Your task to perform on an android device: check the backup settings in the google photos Image 0: 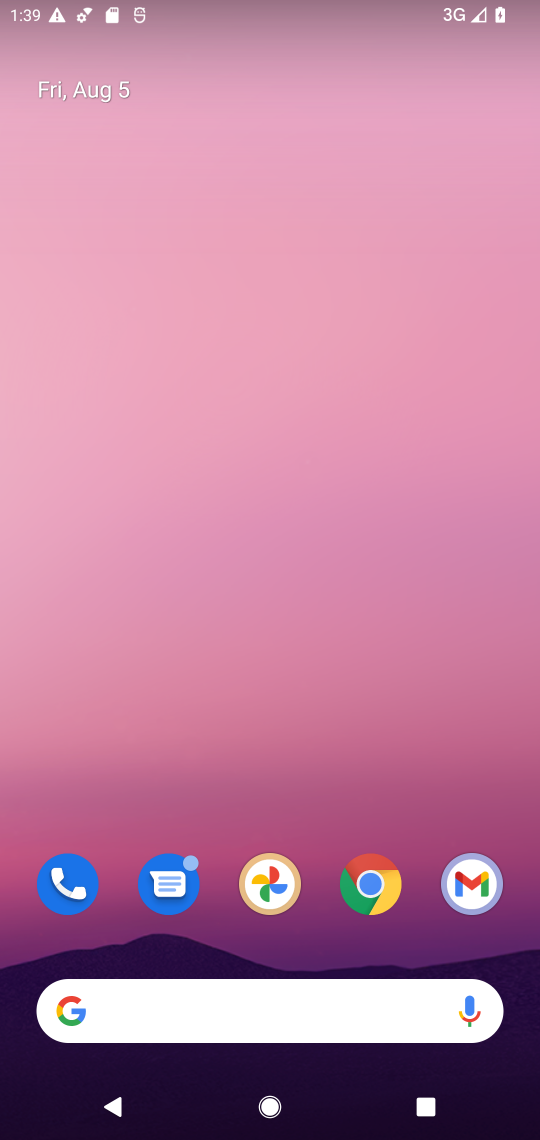
Step 0: drag from (527, 915) to (320, 30)
Your task to perform on an android device: check the backup settings in the google photos Image 1: 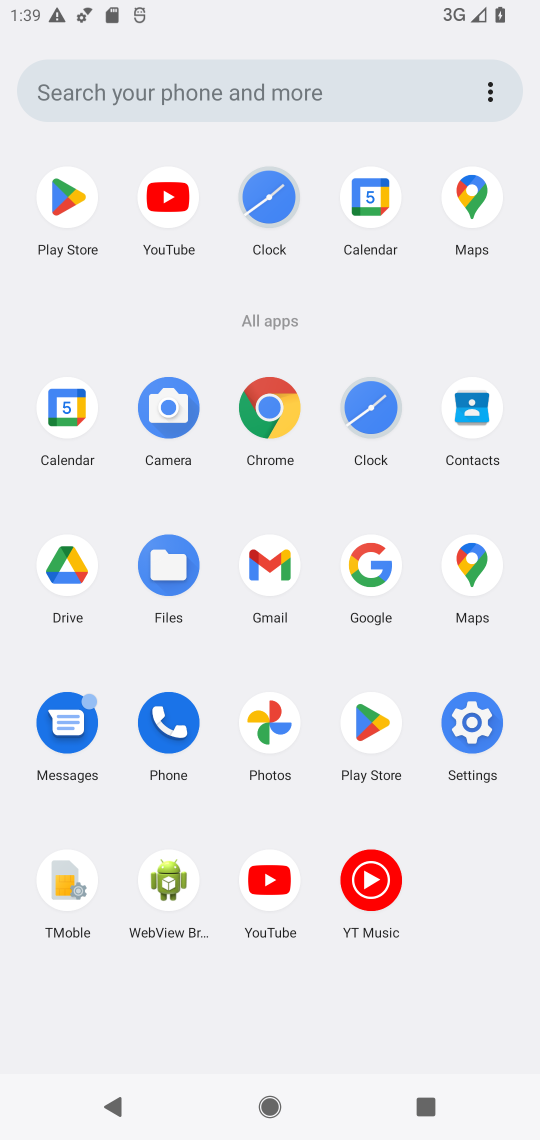
Step 1: click (266, 741)
Your task to perform on an android device: check the backup settings in the google photos Image 2: 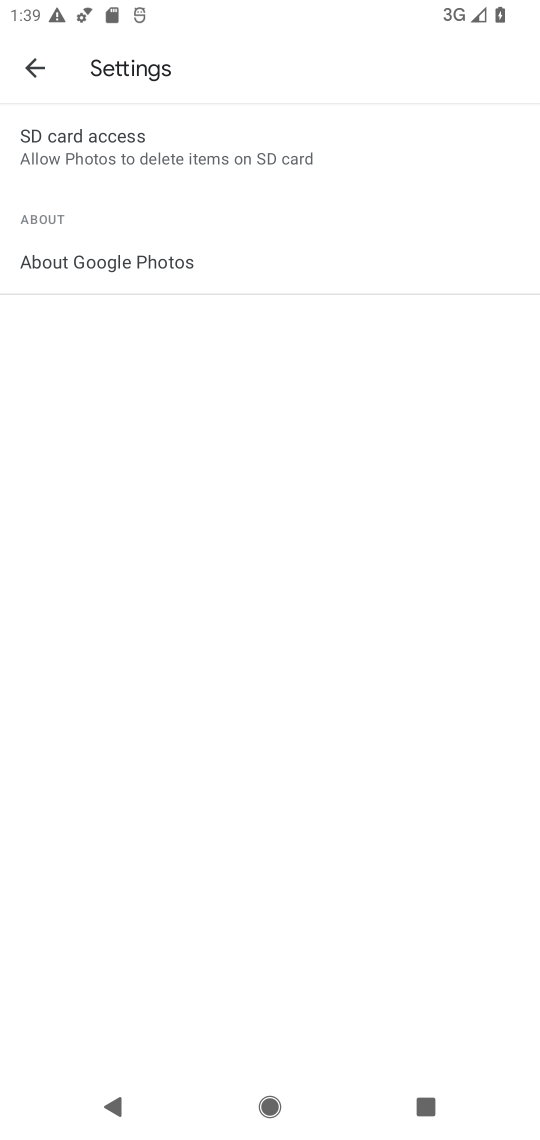
Step 2: press back button
Your task to perform on an android device: check the backup settings in the google photos Image 3: 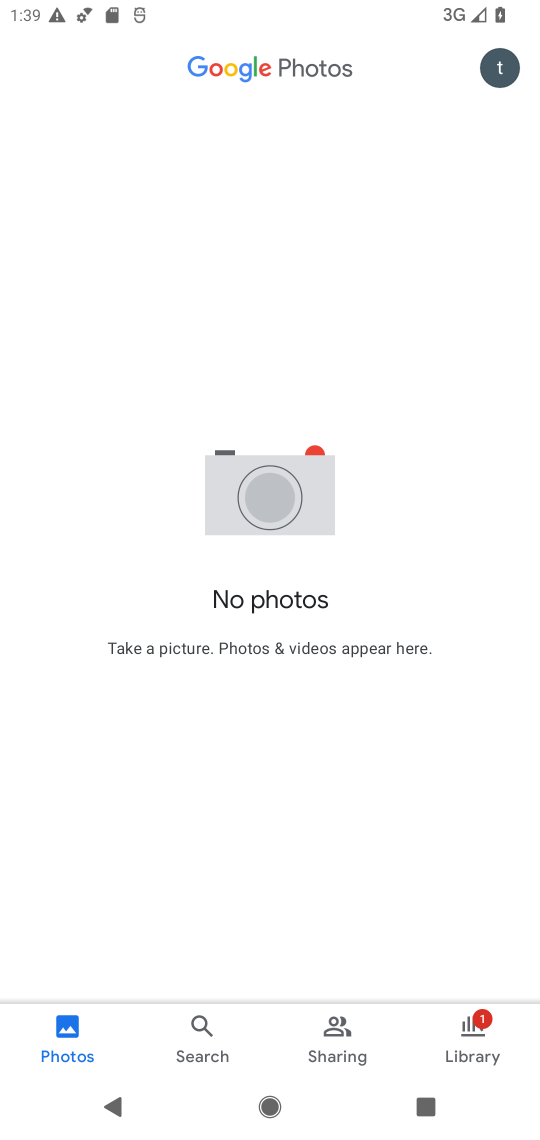
Step 3: click (497, 72)
Your task to perform on an android device: check the backup settings in the google photos Image 4: 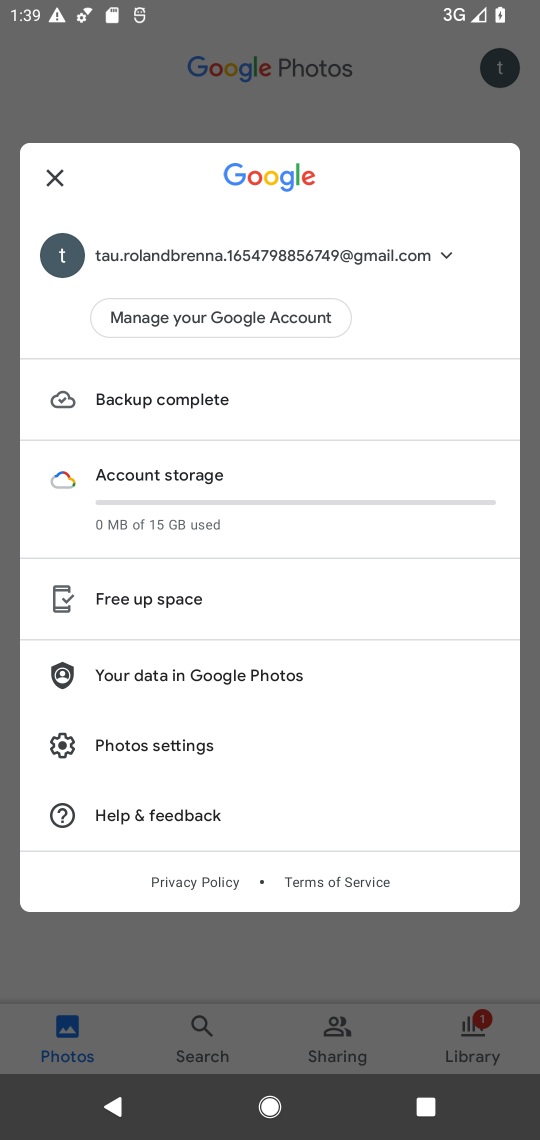
Step 4: click (143, 763)
Your task to perform on an android device: check the backup settings in the google photos Image 5: 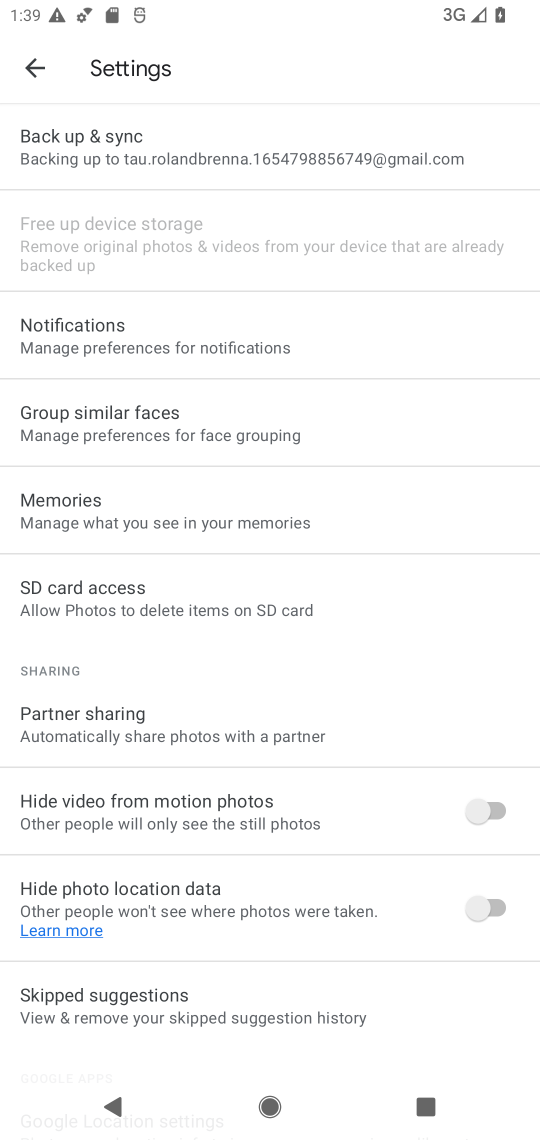
Step 5: click (208, 166)
Your task to perform on an android device: check the backup settings in the google photos Image 6: 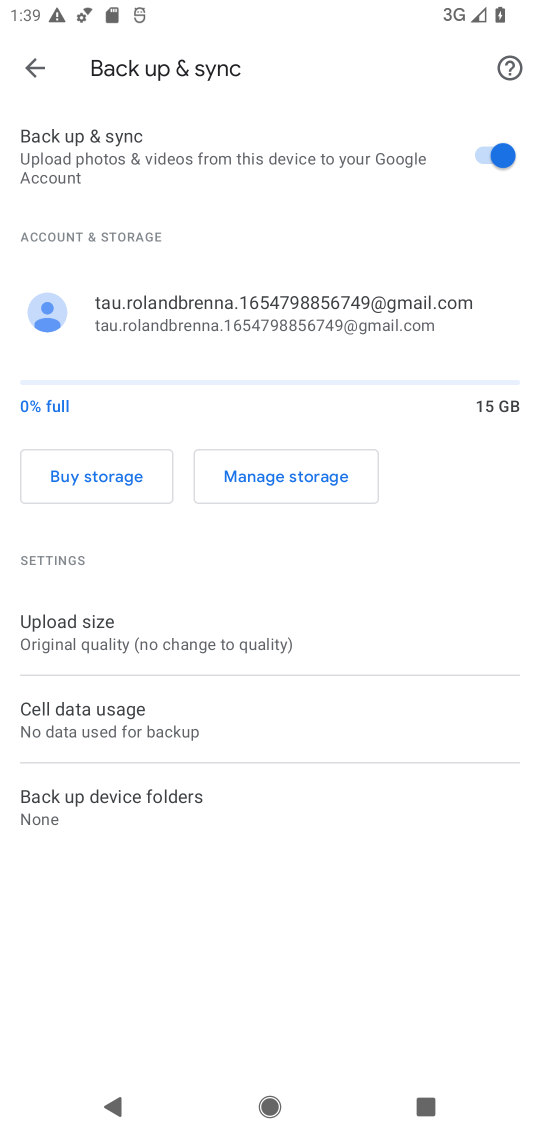
Step 6: task complete